Your task to perform on an android device: Go to settings Image 0: 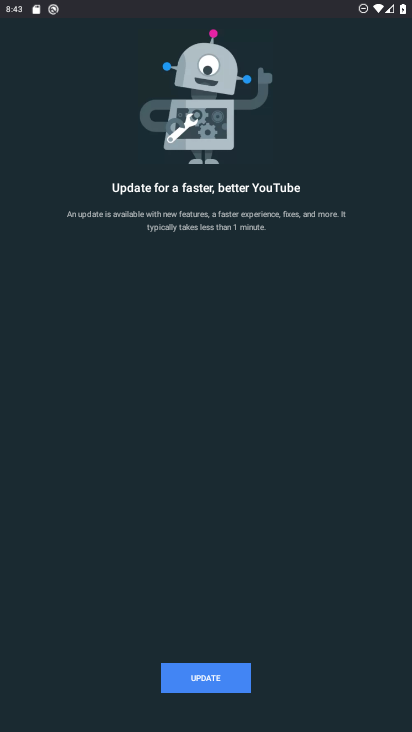
Step 0: press home button
Your task to perform on an android device: Go to settings Image 1: 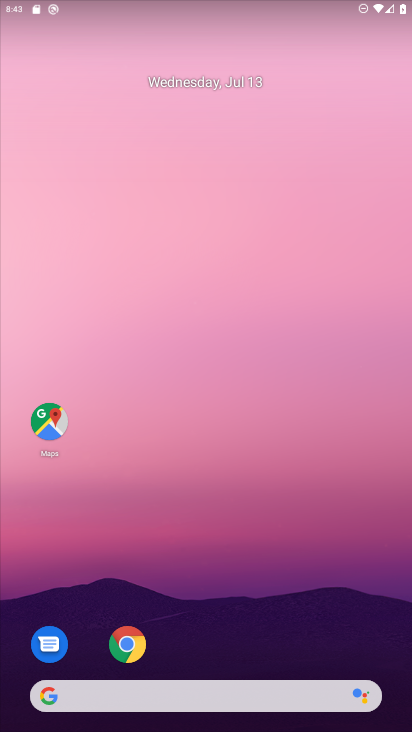
Step 1: drag from (220, 456) to (245, 24)
Your task to perform on an android device: Go to settings Image 2: 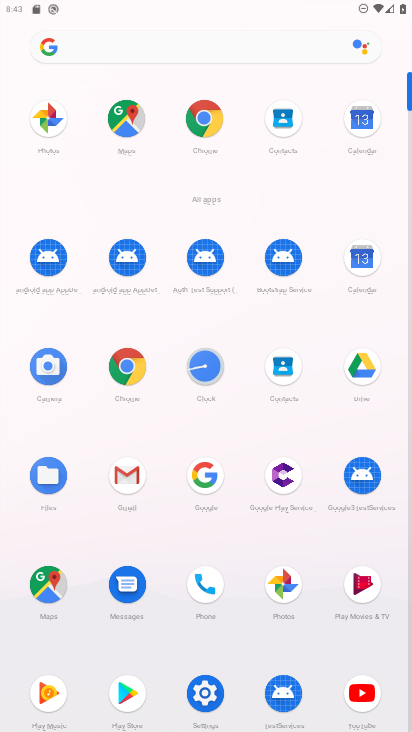
Step 2: click (211, 690)
Your task to perform on an android device: Go to settings Image 3: 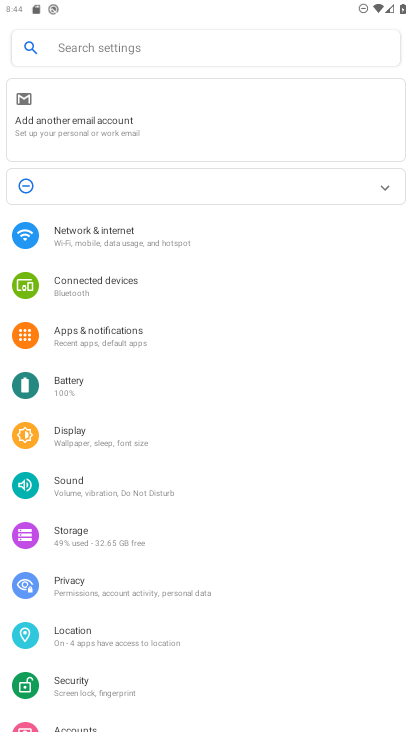
Step 3: task complete